Your task to perform on an android device: open the mobile data screen to see how much data has been used Image 0: 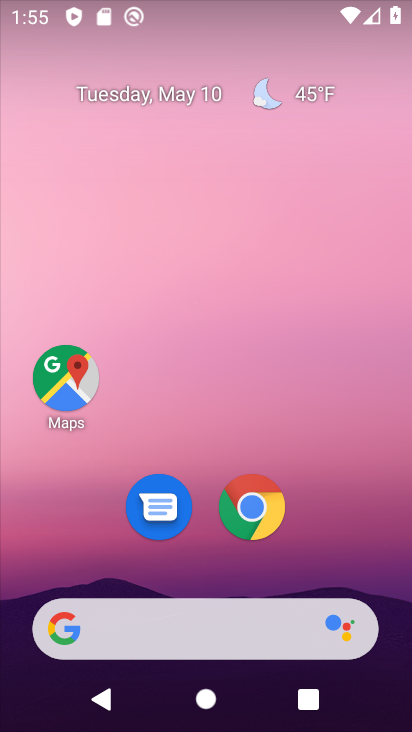
Step 0: drag from (343, 565) to (125, 99)
Your task to perform on an android device: open the mobile data screen to see how much data has been used Image 1: 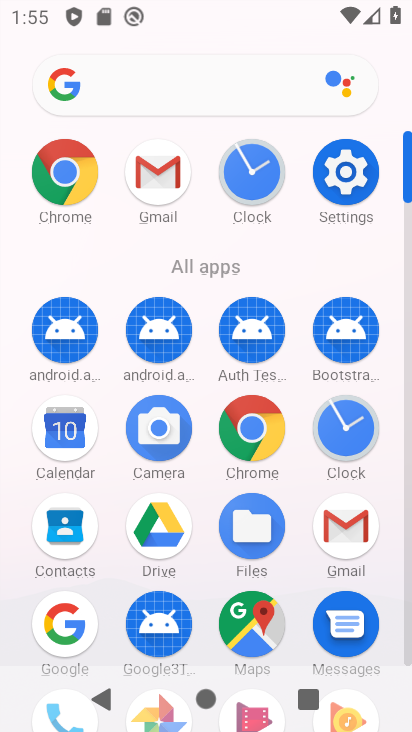
Step 1: click (343, 170)
Your task to perform on an android device: open the mobile data screen to see how much data has been used Image 2: 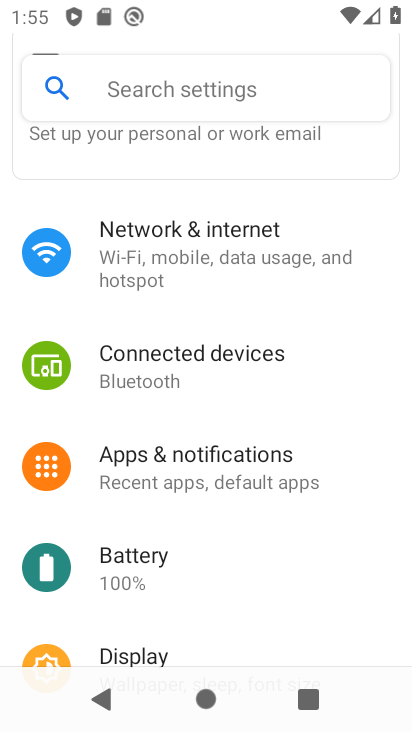
Step 2: click (146, 270)
Your task to perform on an android device: open the mobile data screen to see how much data has been used Image 3: 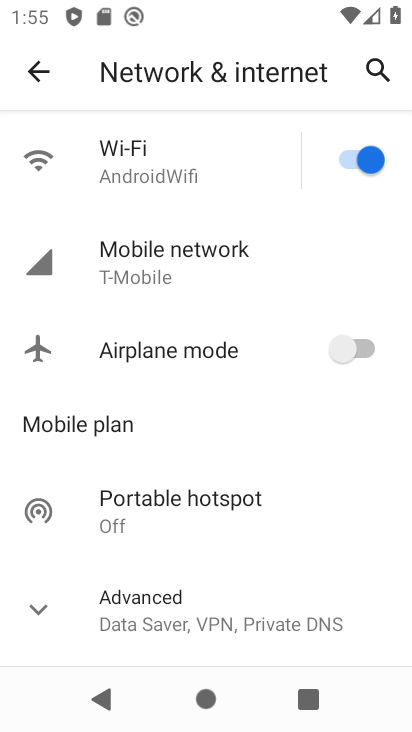
Step 3: click (146, 270)
Your task to perform on an android device: open the mobile data screen to see how much data has been used Image 4: 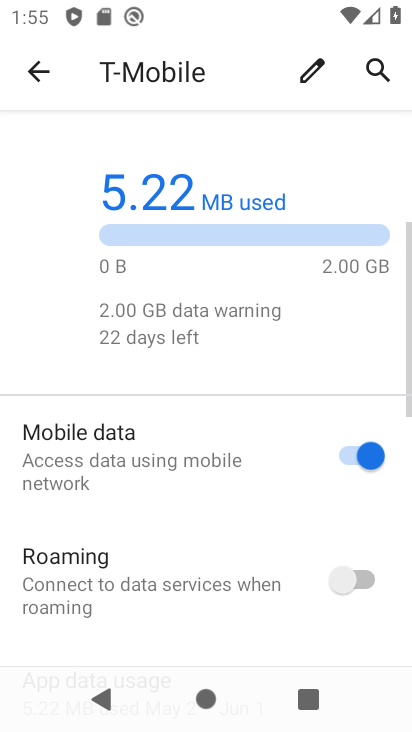
Step 4: task complete